Your task to perform on an android device: delete a single message in the gmail app Image 0: 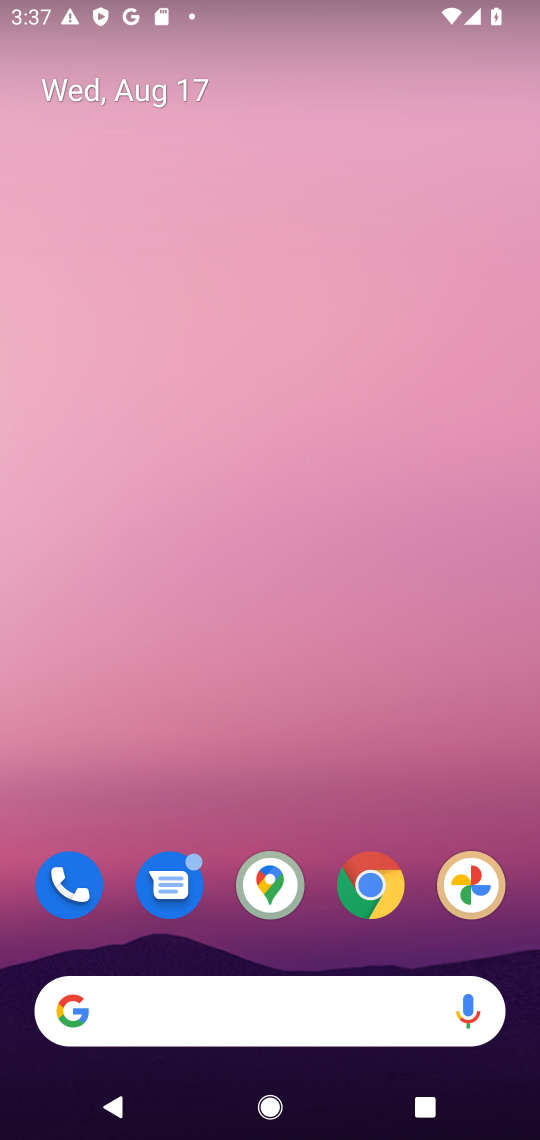
Step 0: drag from (197, 1021) to (218, 187)
Your task to perform on an android device: delete a single message in the gmail app Image 1: 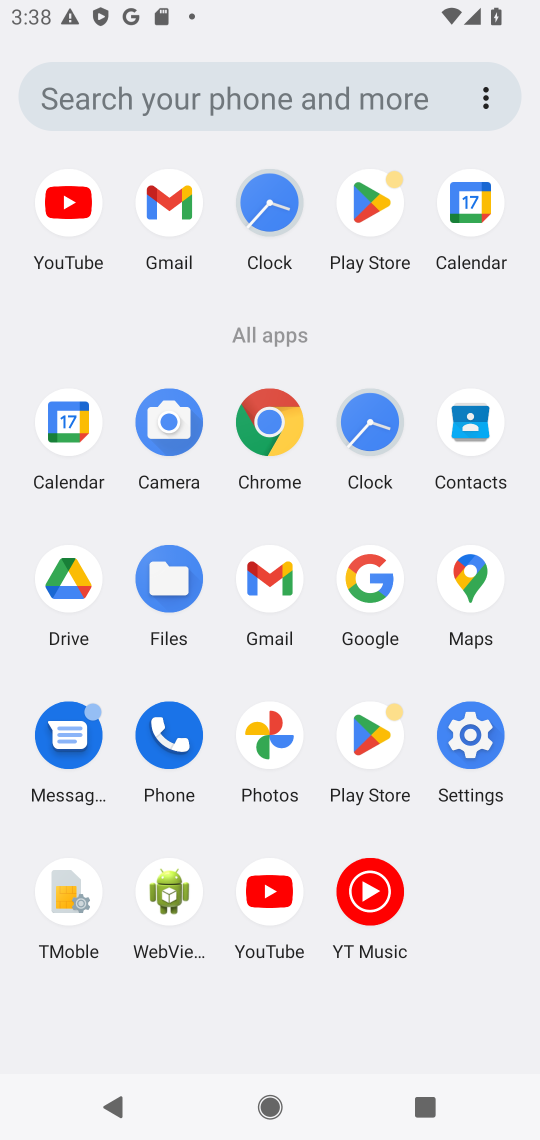
Step 1: click (167, 205)
Your task to perform on an android device: delete a single message in the gmail app Image 2: 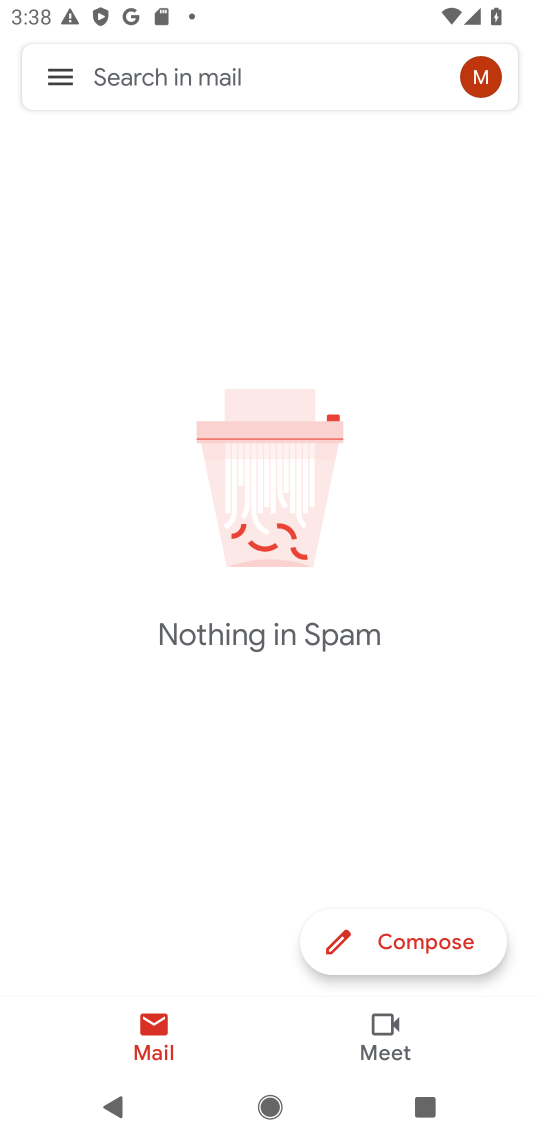
Step 2: click (65, 85)
Your task to perform on an android device: delete a single message in the gmail app Image 3: 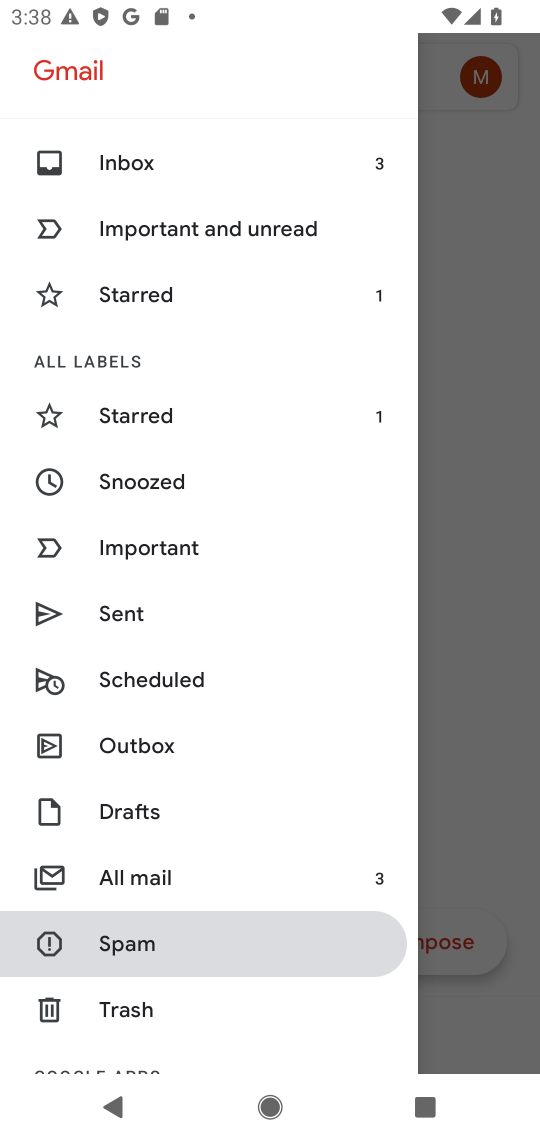
Step 3: click (146, 874)
Your task to perform on an android device: delete a single message in the gmail app Image 4: 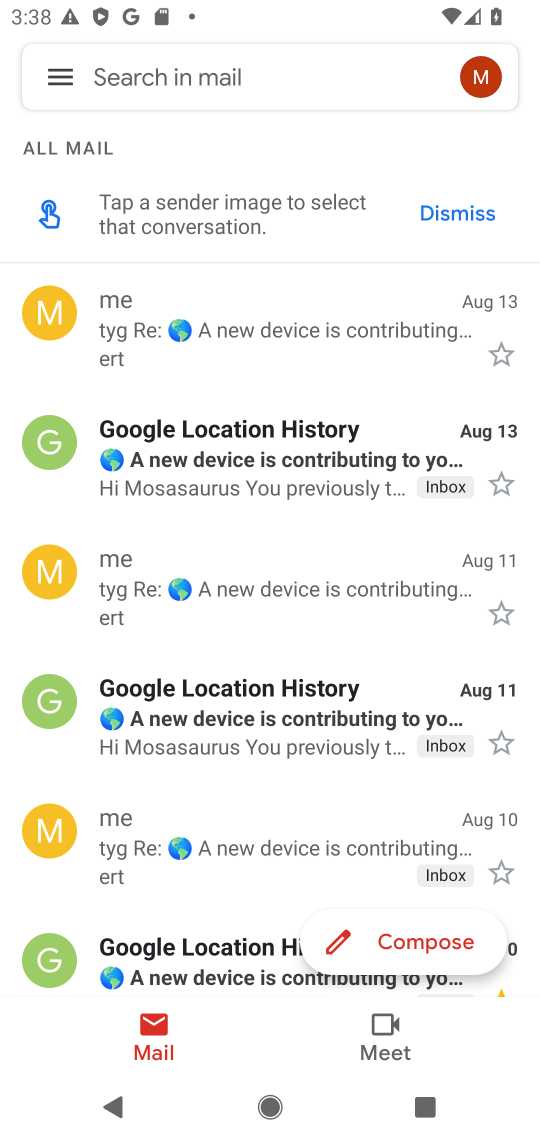
Step 4: click (349, 324)
Your task to perform on an android device: delete a single message in the gmail app Image 5: 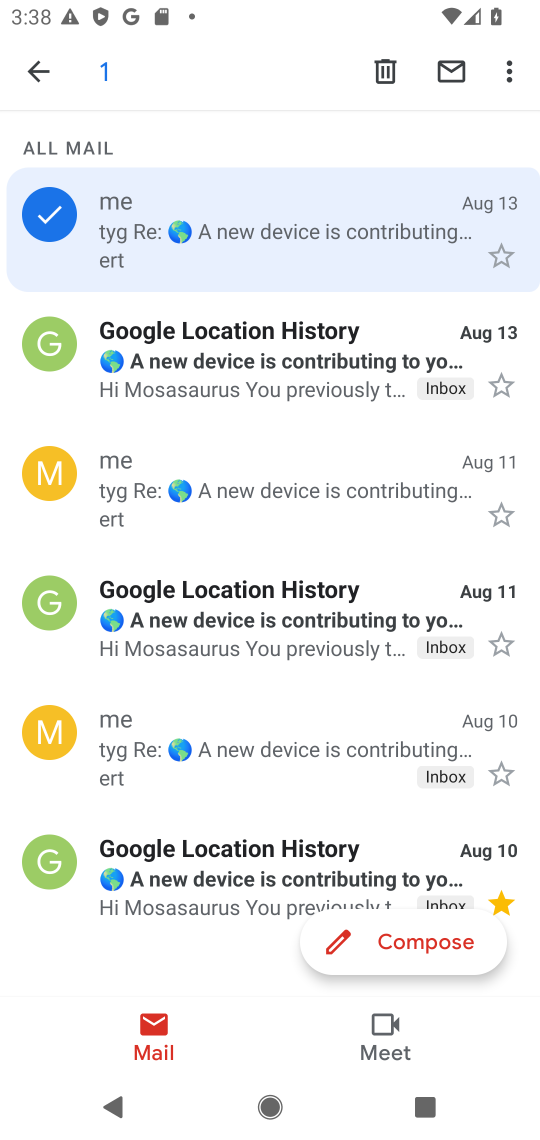
Step 5: click (390, 72)
Your task to perform on an android device: delete a single message in the gmail app Image 6: 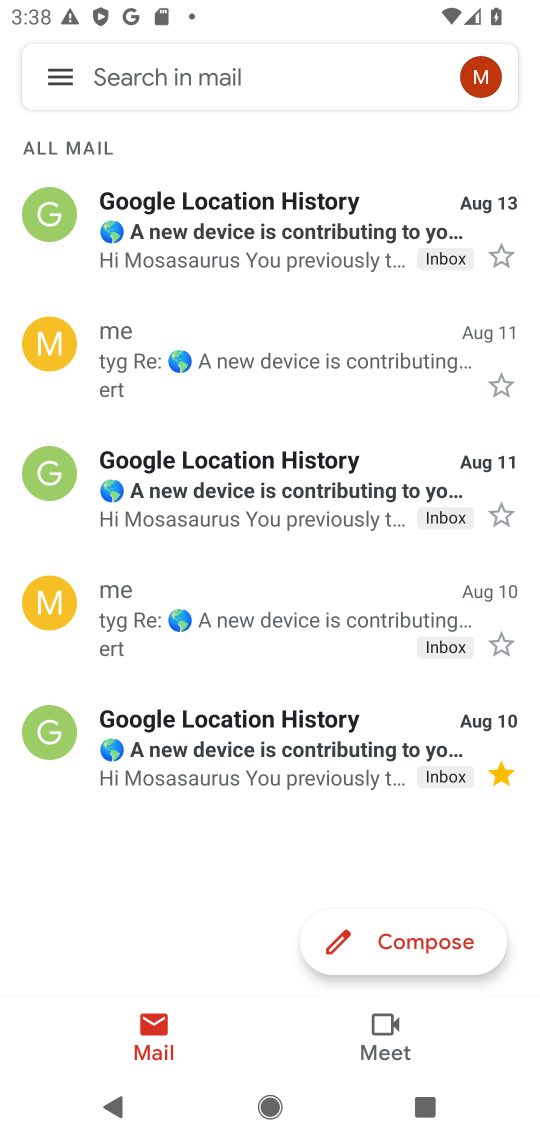
Step 6: task complete